Your task to perform on an android device: toggle notification dots Image 0: 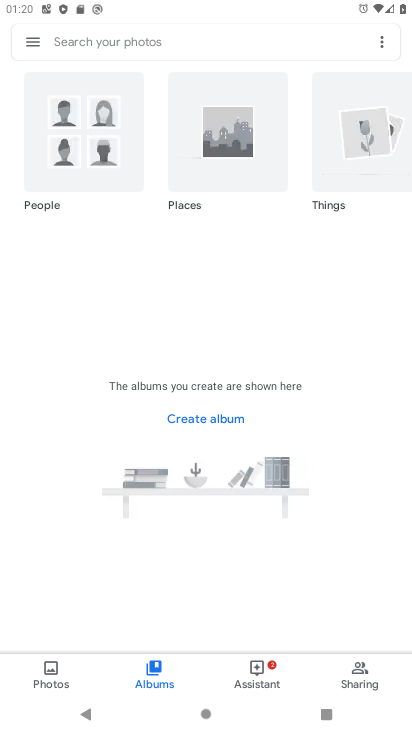
Step 0: press home button
Your task to perform on an android device: toggle notification dots Image 1: 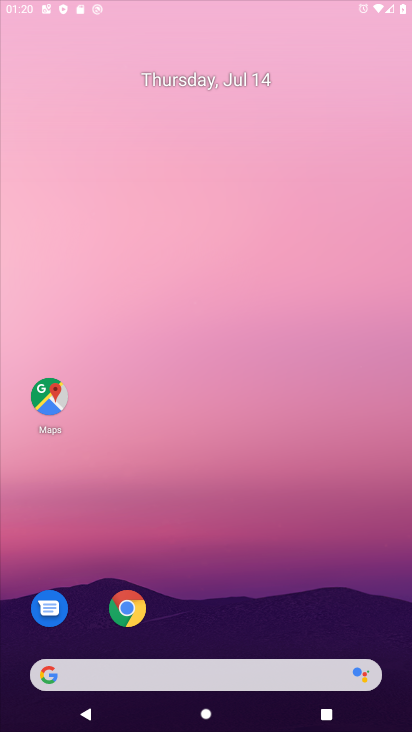
Step 1: drag from (179, 622) to (171, 153)
Your task to perform on an android device: toggle notification dots Image 2: 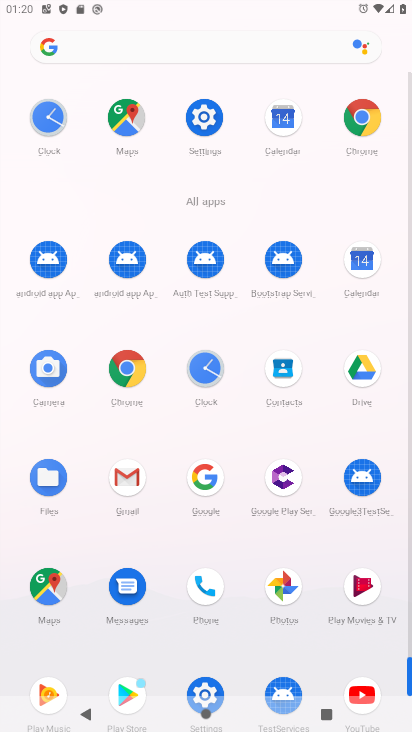
Step 2: click (218, 123)
Your task to perform on an android device: toggle notification dots Image 3: 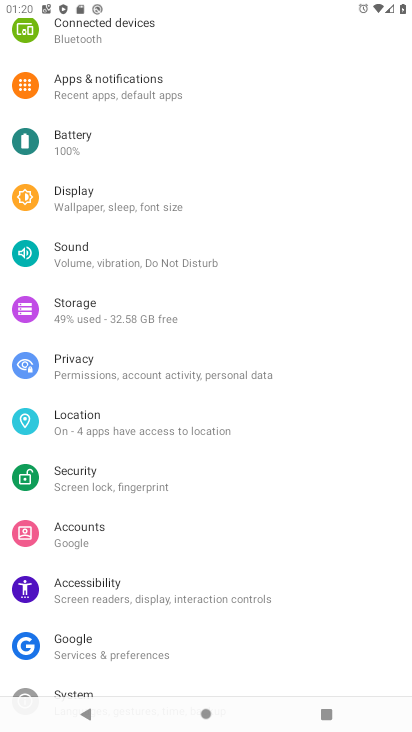
Step 3: click (129, 82)
Your task to perform on an android device: toggle notification dots Image 4: 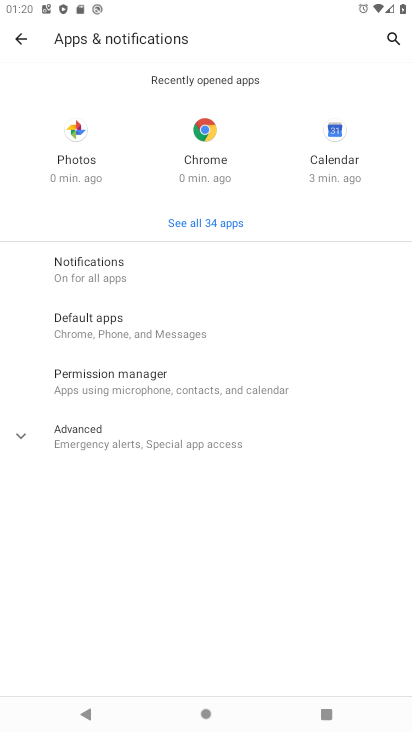
Step 4: click (80, 268)
Your task to perform on an android device: toggle notification dots Image 5: 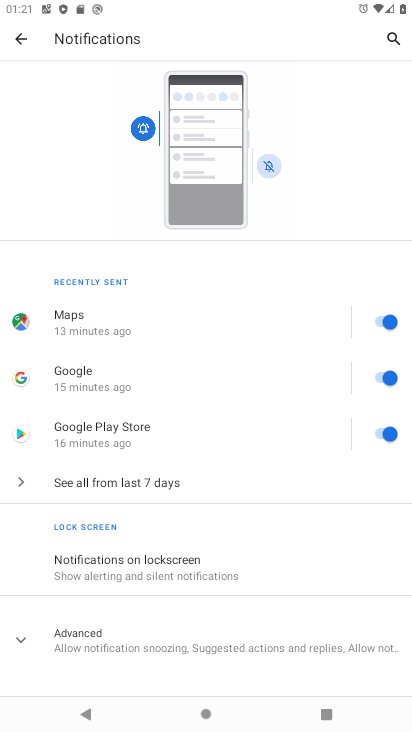
Step 5: click (67, 641)
Your task to perform on an android device: toggle notification dots Image 6: 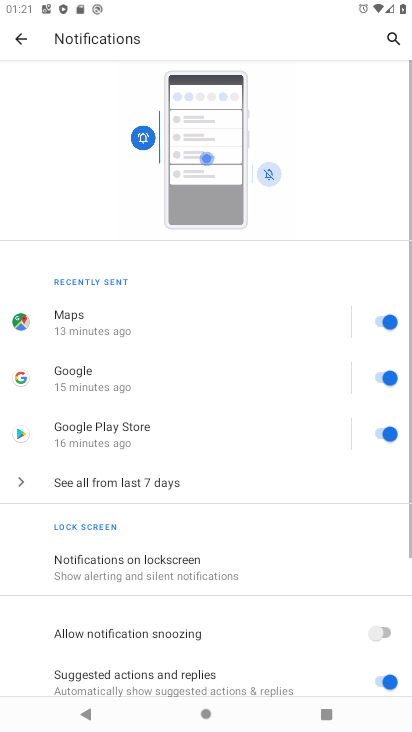
Step 6: drag from (164, 613) to (215, 272)
Your task to perform on an android device: toggle notification dots Image 7: 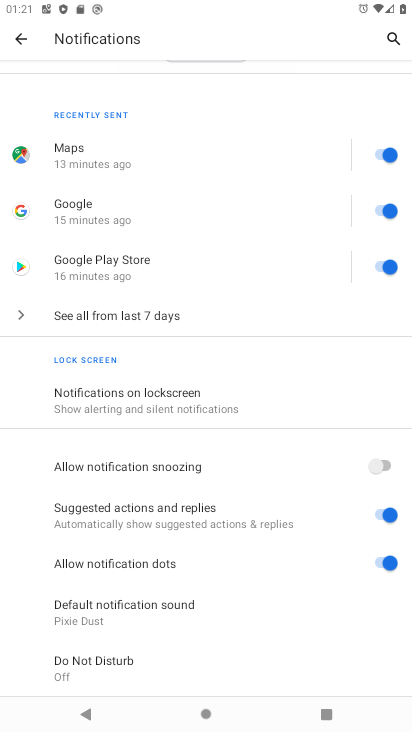
Step 7: click (169, 564)
Your task to perform on an android device: toggle notification dots Image 8: 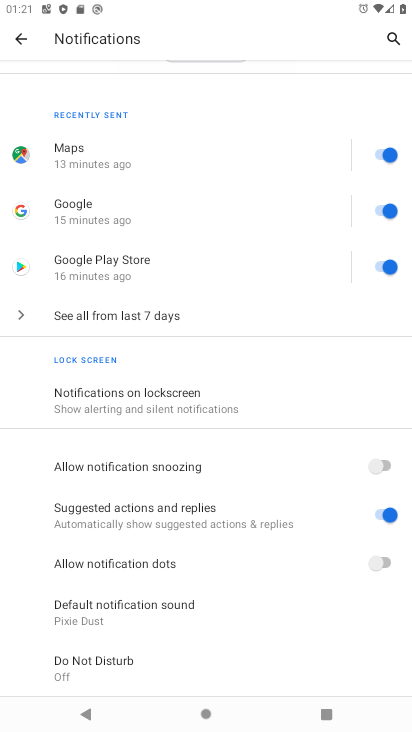
Step 8: task complete